Your task to perform on an android device: search for starred emails in the gmail app Image 0: 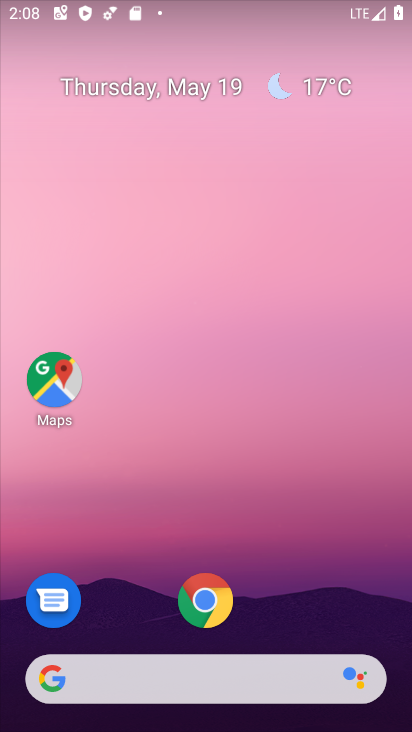
Step 0: drag from (327, 621) to (225, 178)
Your task to perform on an android device: search for starred emails in the gmail app Image 1: 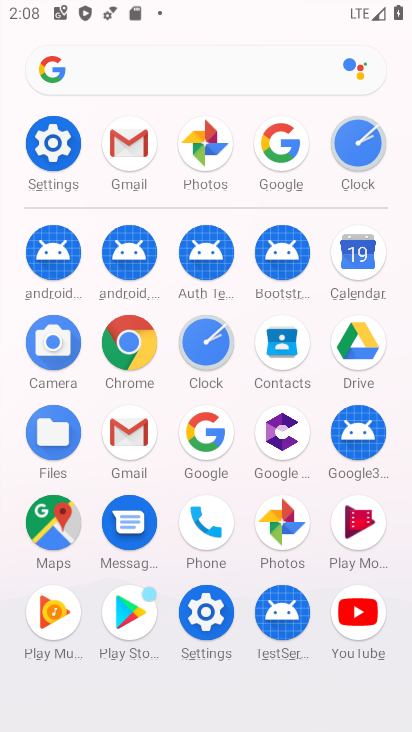
Step 1: click (128, 442)
Your task to perform on an android device: search for starred emails in the gmail app Image 2: 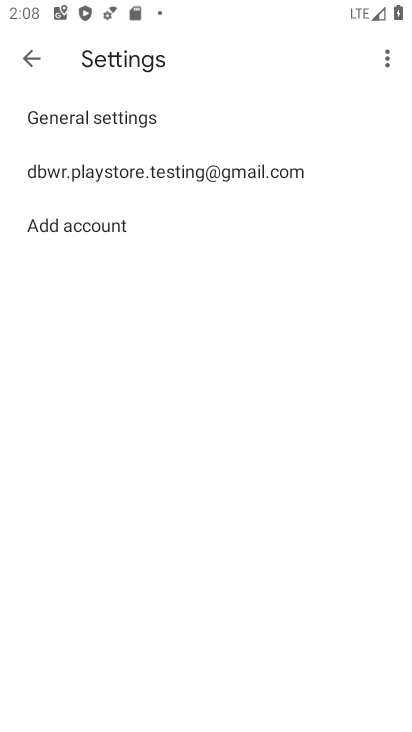
Step 2: click (31, 58)
Your task to perform on an android device: search for starred emails in the gmail app Image 3: 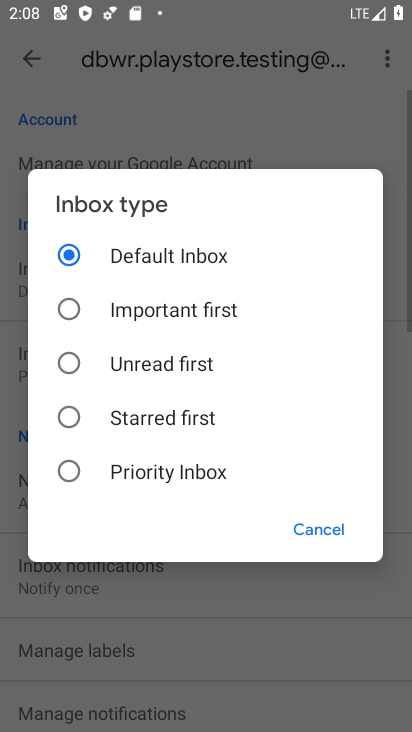
Step 3: click (56, 85)
Your task to perform on an android device: search for starred emails in the gmail app Image 4: 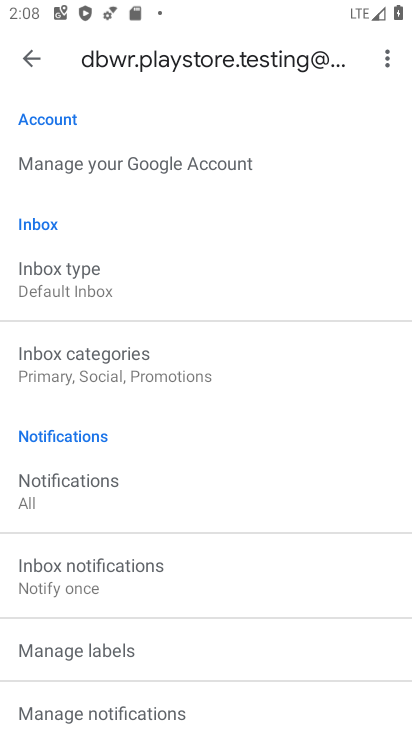
Step 4: click (27, 61)
Your task to perform on an android device: search for starred emails in the gmail app Image 5: 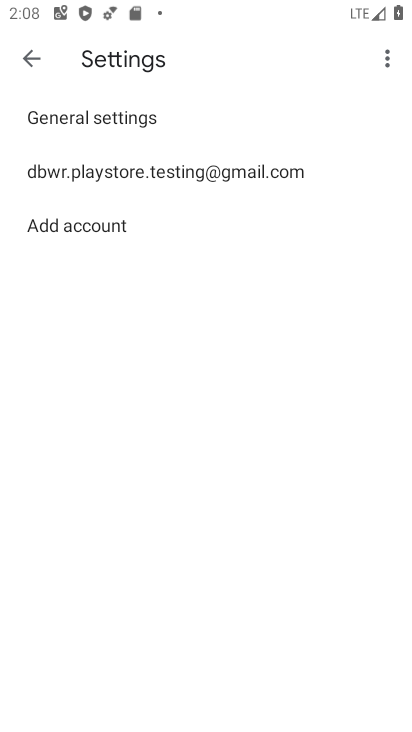
Step 5: click (26, 62)
Your task to perform on an android device: search for starred emails in the gmail app Image 6: 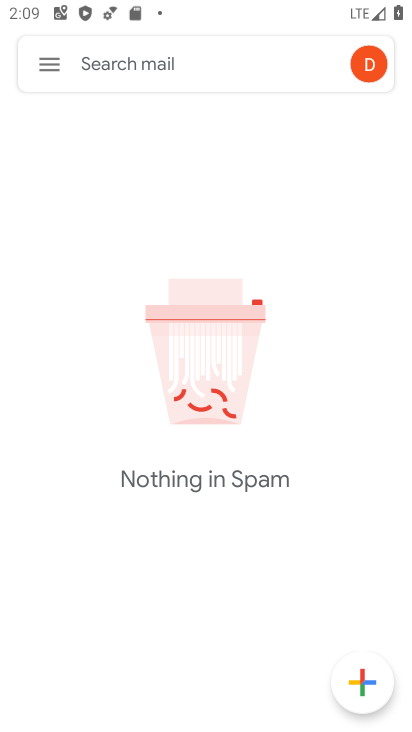
Step 6: click (41, 65)
Your task to perform on an android device: search for starred emails in the gmail app Image 7: 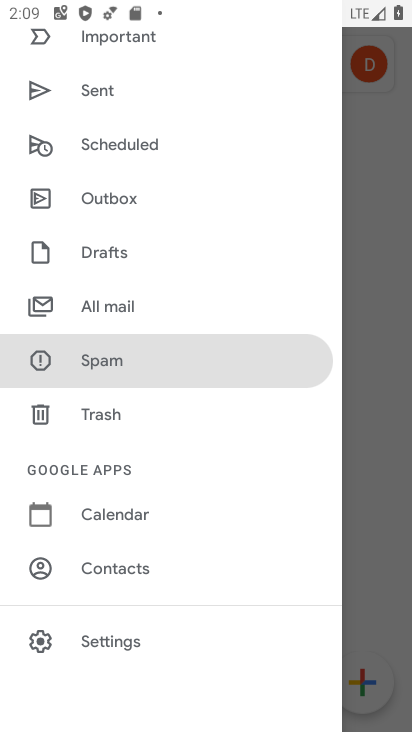
Step 7: drag from (105, 95) to (99, 491)
Your task to perform on an android device: search for starred emails in the gmail app Image 8: 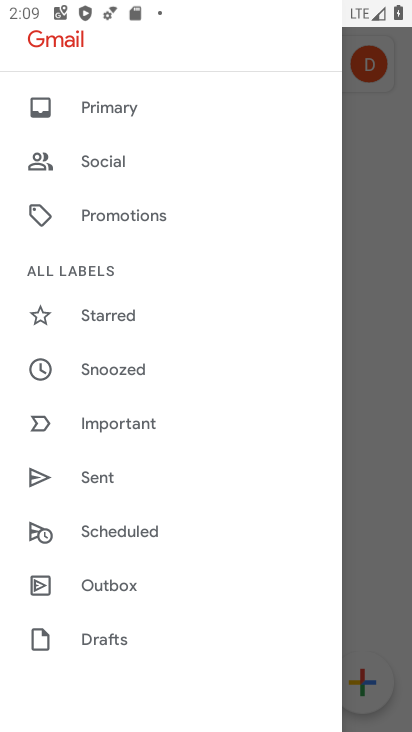
Step 8: click (98, 319)
Your task to perform on an android device: search for starred emails in the gmail app Image 9: 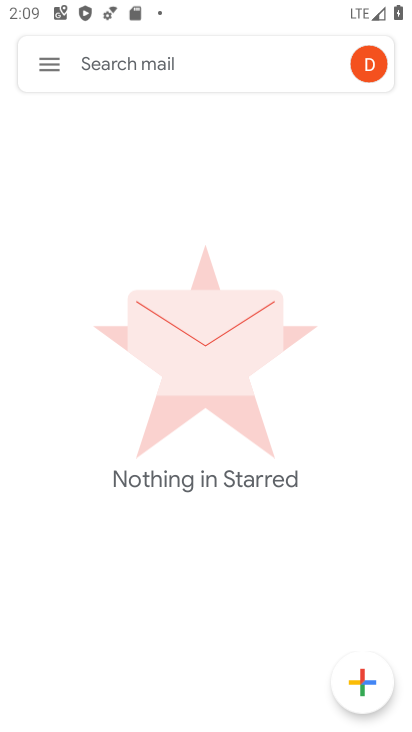
Step 9: task complete